Your task to perform on an android device: clear history in the chrome app Image 0: 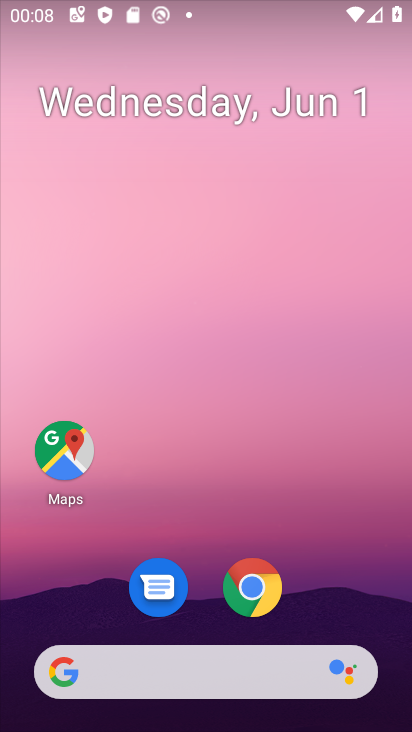
Step 0: click (265, 586)
Your task to perform on an android device: clear history in the chrome app Image 1: 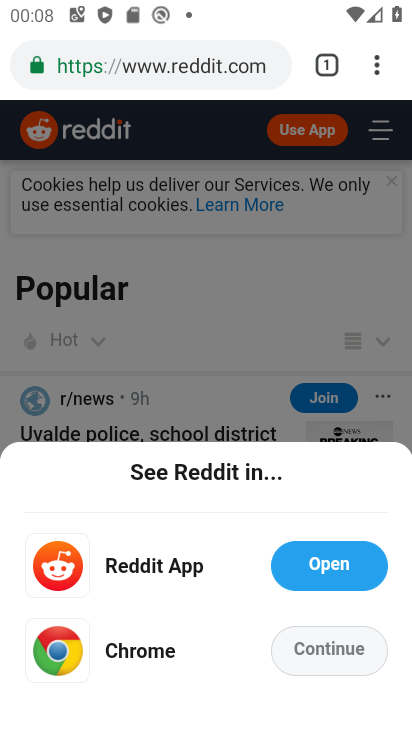
Step 1: click (378, 72)
Your task to perform on an android device: clear history in the chrome app Image 2: 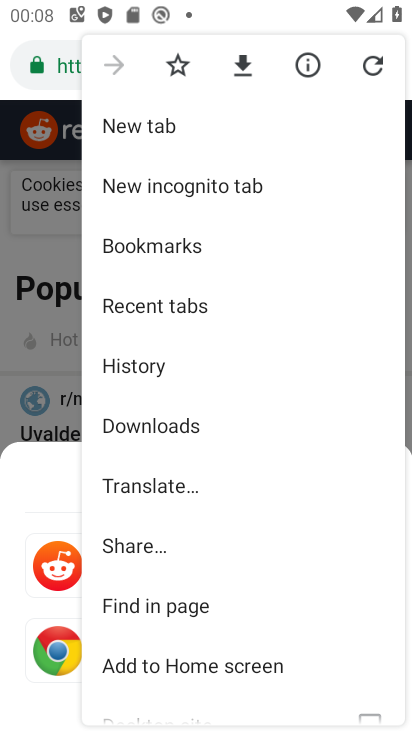
Step 2: click (171, 370)
Your task to perform on an android device: clear history in the chrome app Image 3: 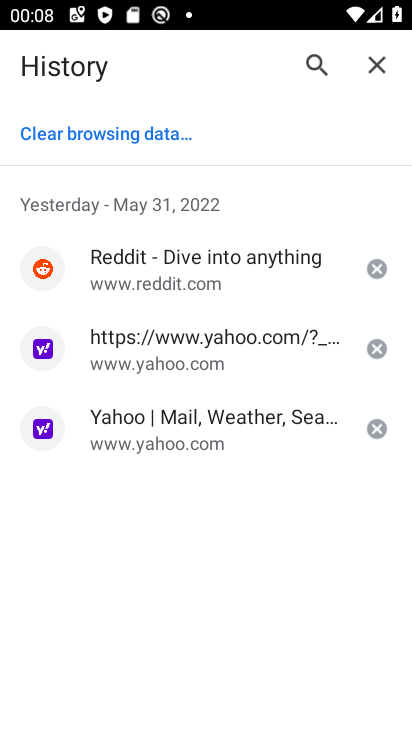
Step 3: click (87, 122)
Your task to perform on an android device: clear history in the chrome app Image 4: 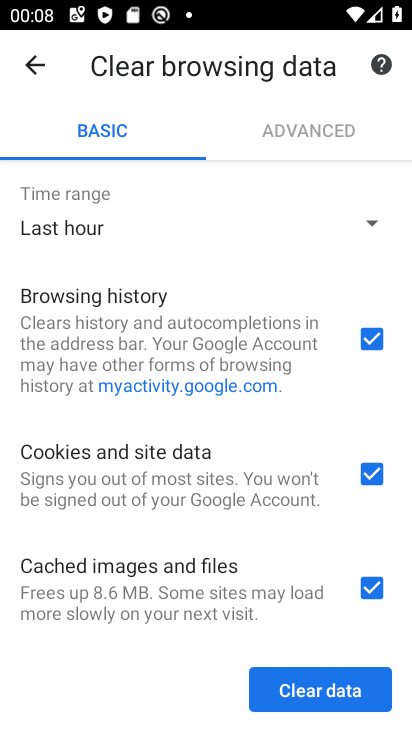
Step 4: click (348, 695)
Your task to perform on an android device: clear history in the chrome app Image 5: 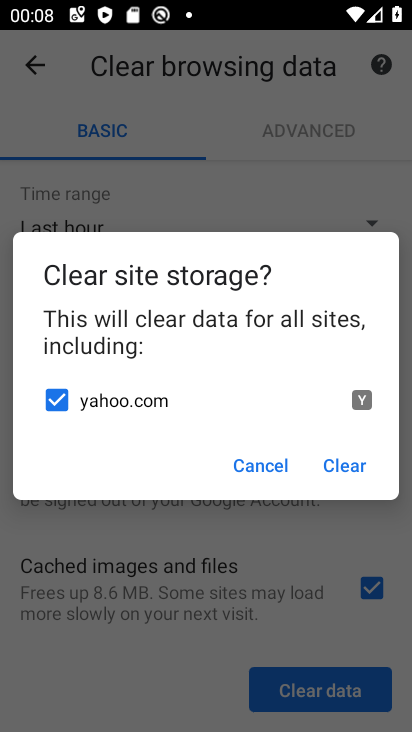
Step 5: click (354, 467)
Your task to perform on an android device: clear history in the chrome app Image 6: 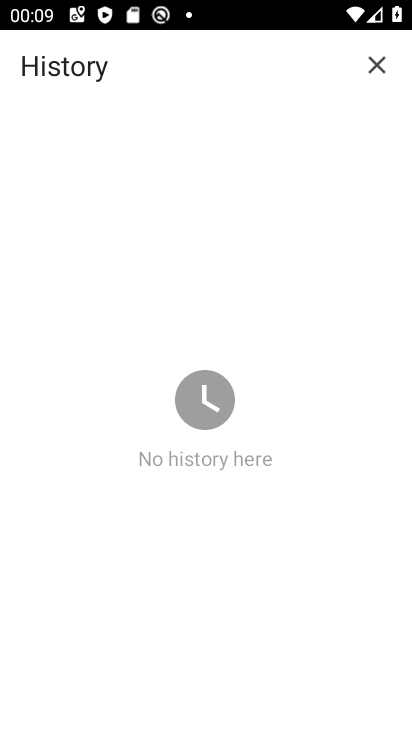
Step 6: task complete